Your task to perform on an android device: Open battery settings Image 0: 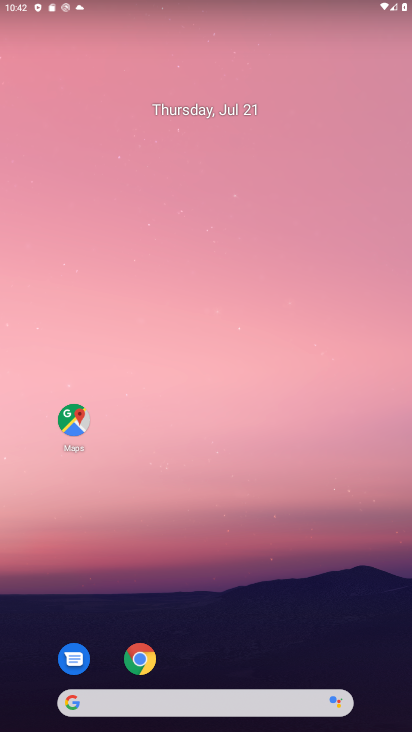
Step 0: drag from (232, 681) to (135, 70)
Your task to perform on an android device: Open battery settings Image 1: 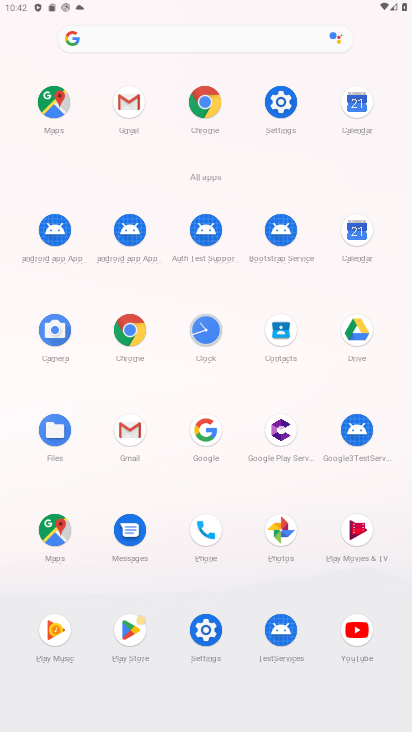
Step 1: click (287, 114)
Your task to perform on an android device: Open battery settings Image 2: 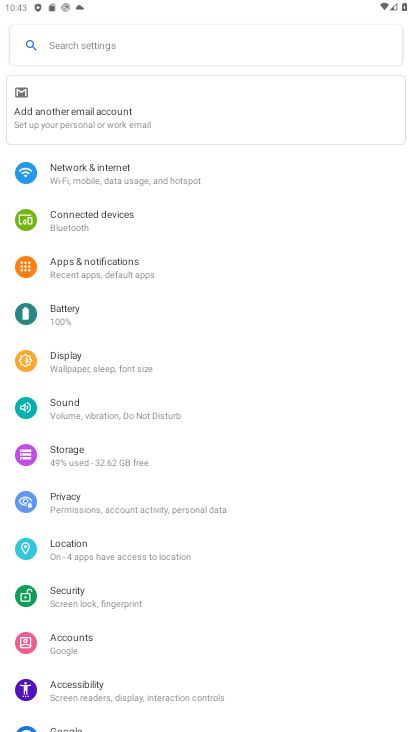
Step 2: click (122, 334)
Your task to perform on an android device: Open battery settings Image 3: 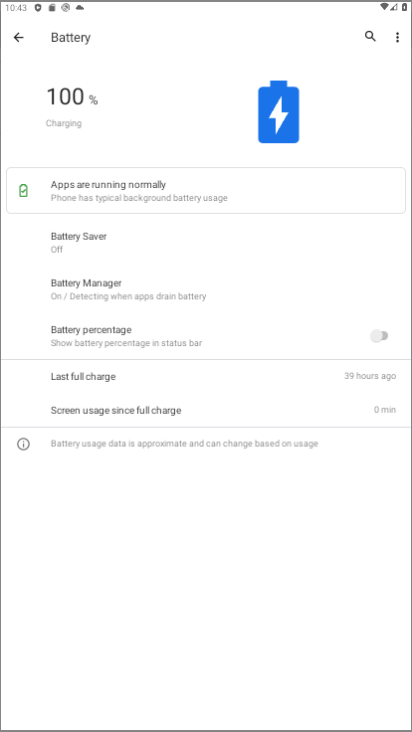
Step 3: task complete